Your task to perform on an android device: turn on notifications settings in the gmail app Image 0: 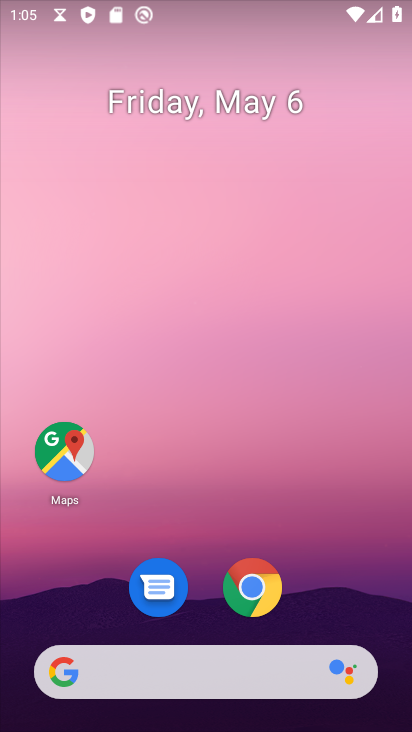
Step 0: drag from (209, 603) to (205, 68)
Your task to perform on an android device: turn on notifications settings in the gmail app Image 1: 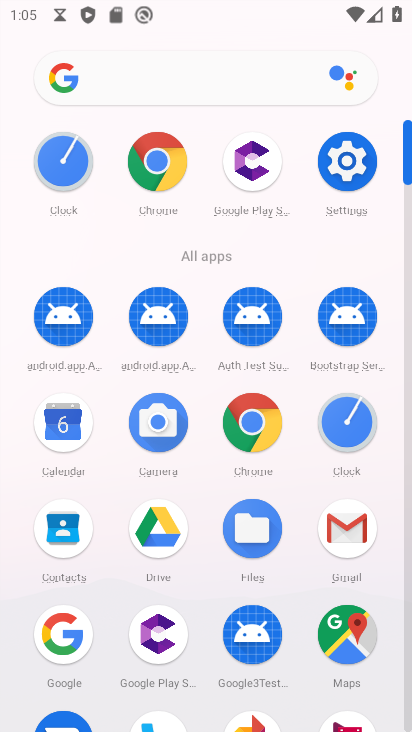
Step 1: click (345, 523)
Your task to perform on an android device: turn on notifications settings in the gmail app Image 2: 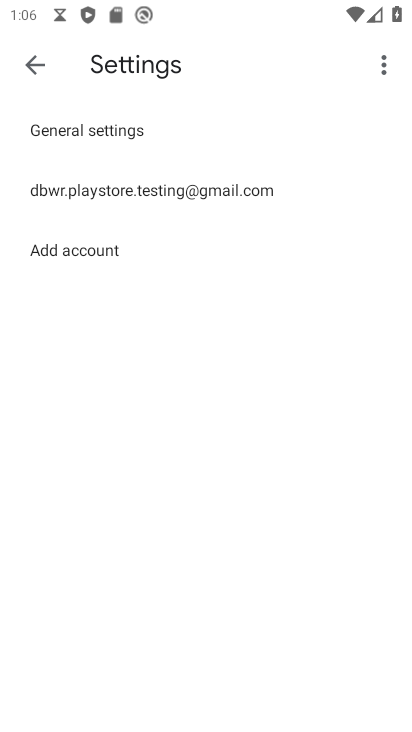
Step 2: click (154, 126)
Your task to perform on an android device: turn on notifications settings in the gmail app Image 3: 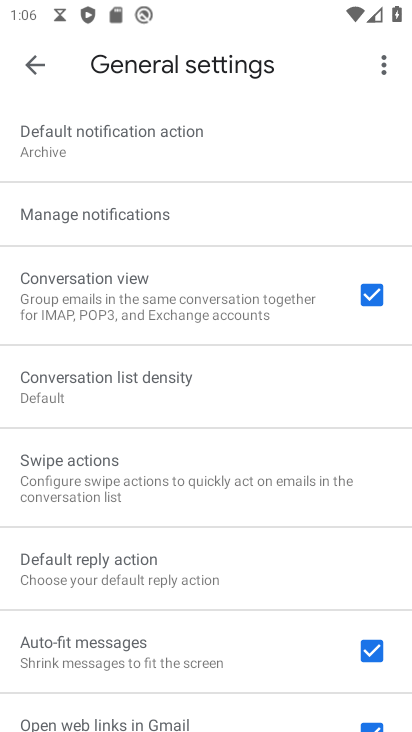
Step 3: click (192, 214)
Your task to perform on an android device: turn on notifications settings in the gmail app Image 4: 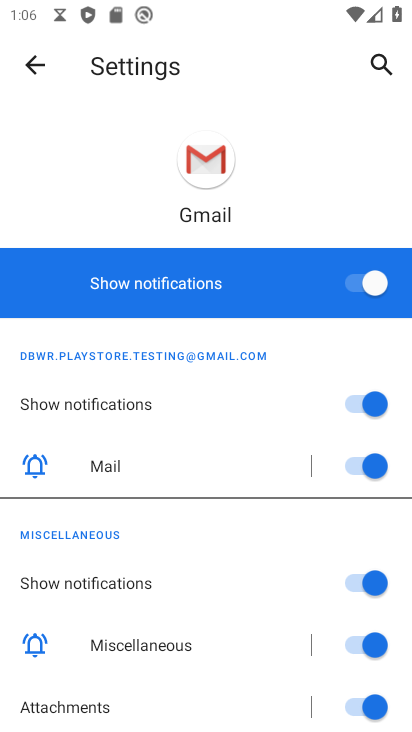
Step 4: task complete